Your task to perform on an android device: turn on wifi Image 0: 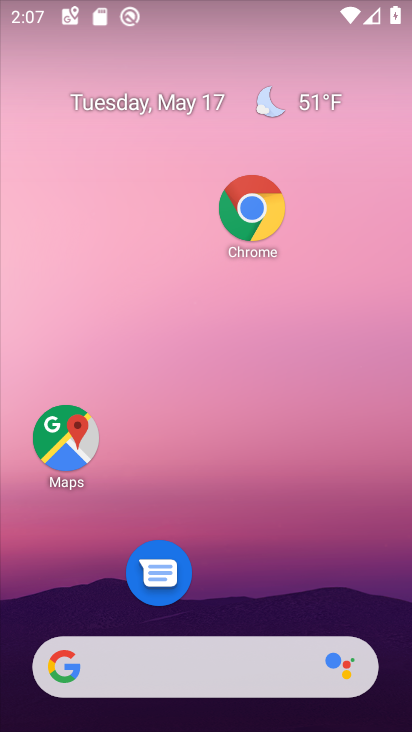
Step 0: drag from (192, 610) to (135, 65)
Your task to perform on an android device: turn on wifi Image 1: 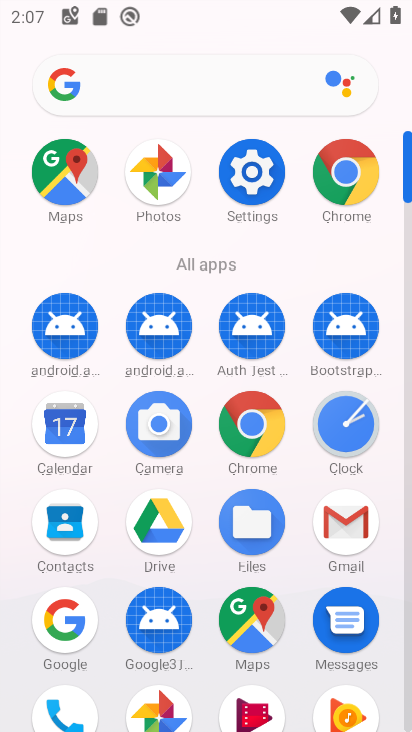
Step 1: click (268, 158)
Your task to perform on an android device: turn on wifi Image 2: 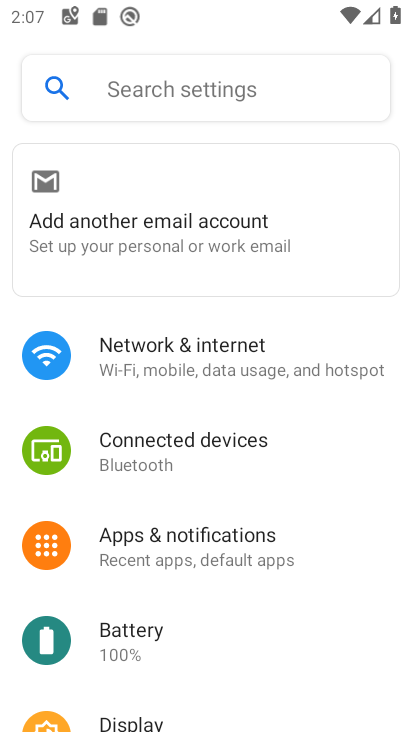
Step 2: click (170, 347)
Your task to perform on an android device: turn on wifi Image 3: 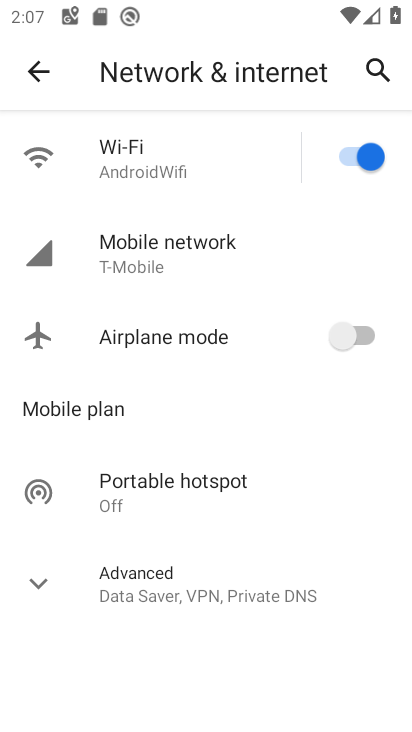
Step 3: click (156, 178)
Your task to perform on an android device: turn on wifi Image 4: 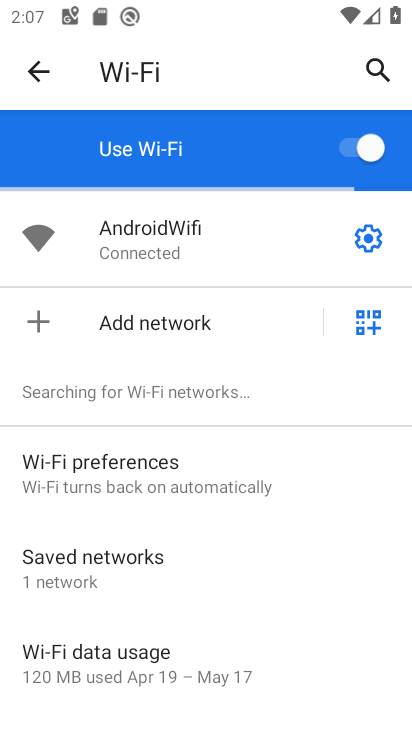
Step 4: task complete